Your task to perform on an android device: toggle improve location accuracy Image 0: 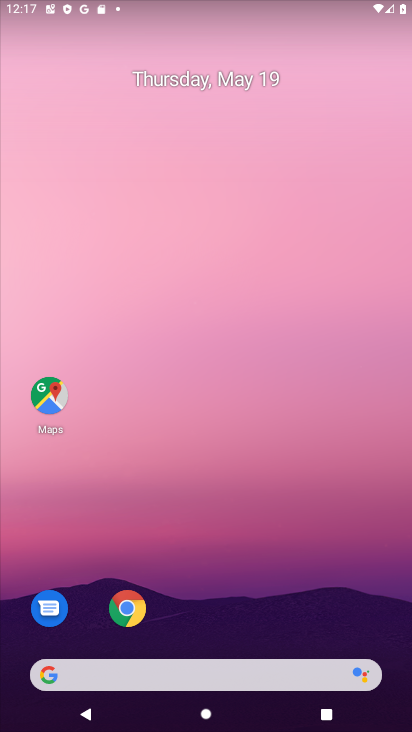
Step 0: drag from (253, 596) to (285, 156)
Your task to perform on an android device: toggle improve location accuracy Image 1: 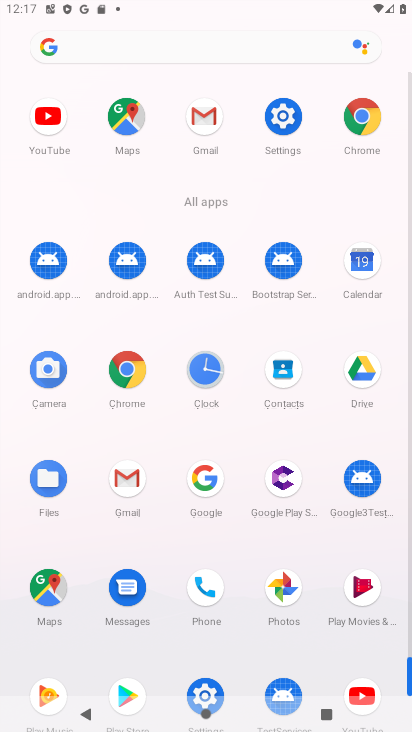
Step 1: click (274, 110)
Your task to perform on an android device: toggle improve location accuracy Image 2: 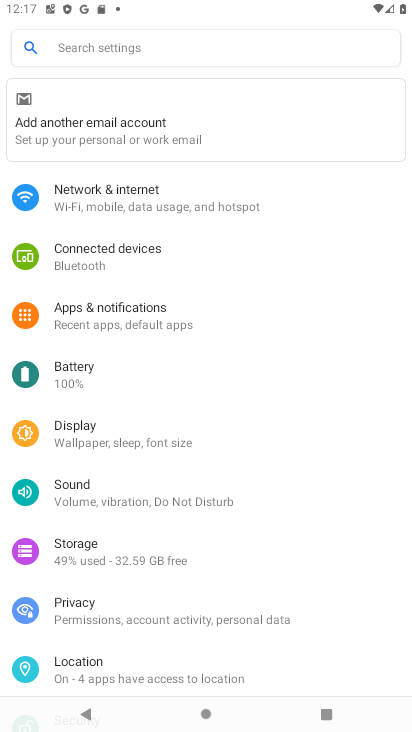
Step 2: click (117, 664)
Your task to perform on an android device: toggle improve location accuracy Image 3: 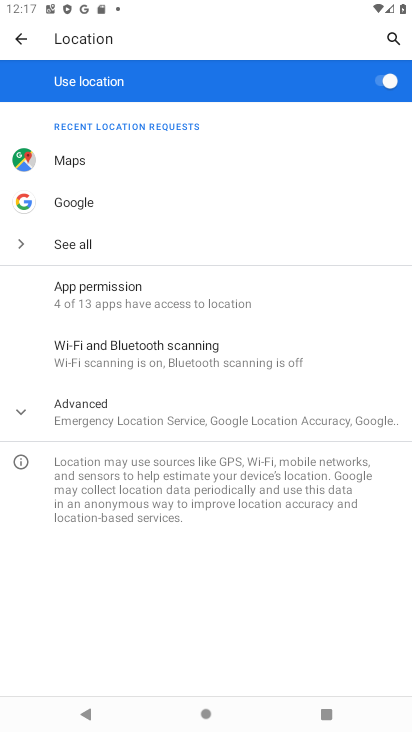
Step 3: click (203, 406)
Your task to perform on an android device: toggle improve location accuracy Image 4: 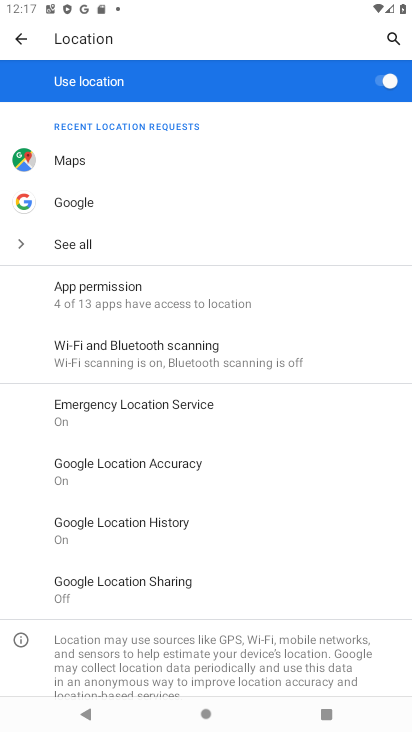
Step 4: click (201, 475)
Your task to perform on an android device: toggle improve location accuracy Image 5: 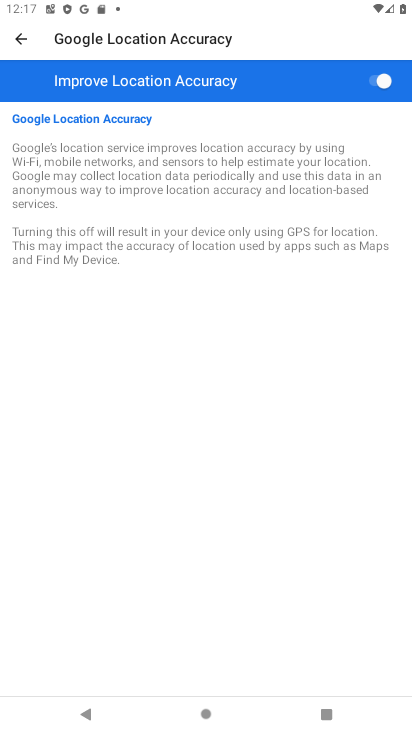
Step 5: click (383, 80)
Your task to perform on an android device: toggle improve location accuracy Image 6: 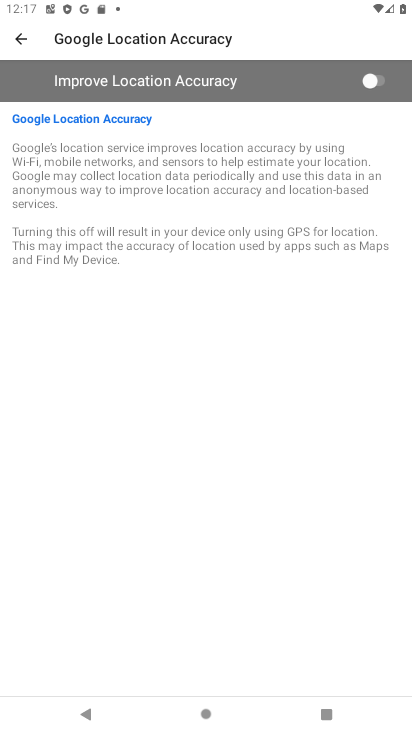
Step 6: task complete